Your task to perform on an android device: Search for logitech g903 on amazon, select the first entry, add it to the cart, then select checkout. Image 0: 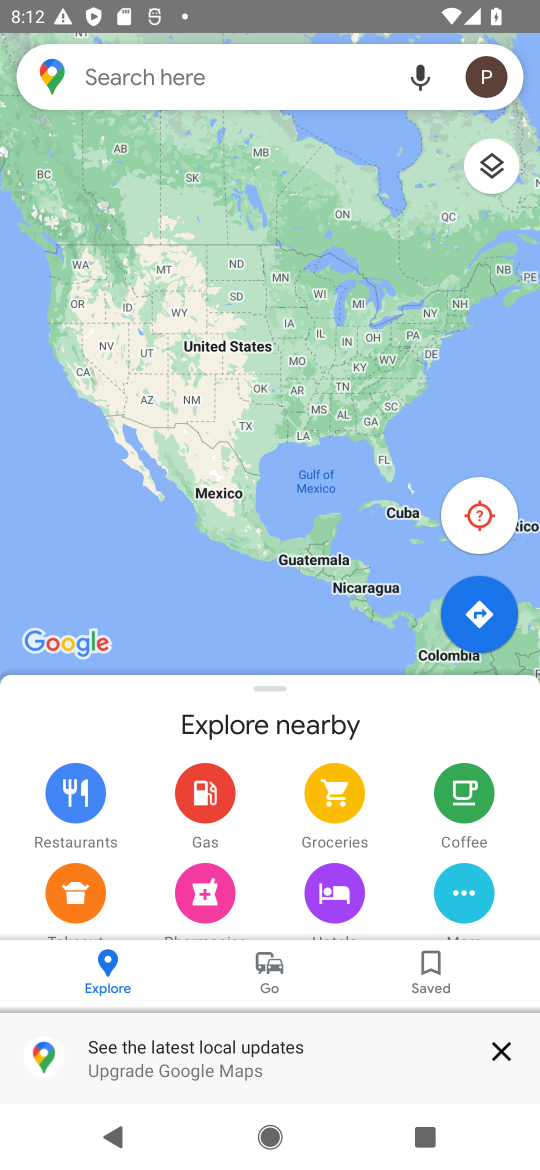
Step 0: press home button
Your task to perform on an android device: Search for logitech g903 on amazon, select the first entry, add it to the cart, then select checkout. Image 1: 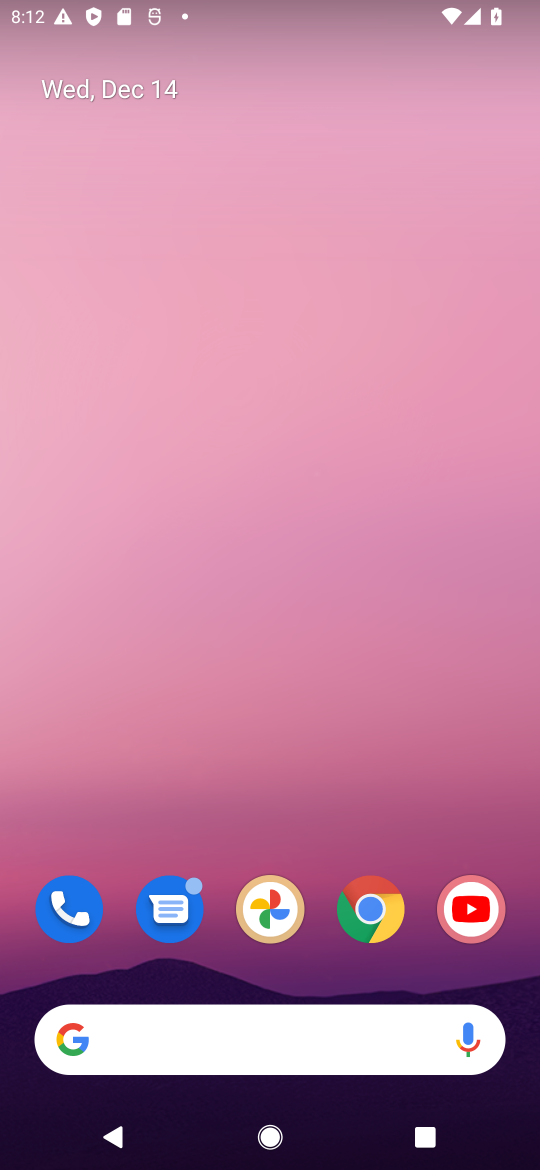
Step 1: click (363, 907)
Your task to perform on an android device: Search for logitech g903 on amazon, select the first entry, add it to the cart, then select checkout. Image 2: 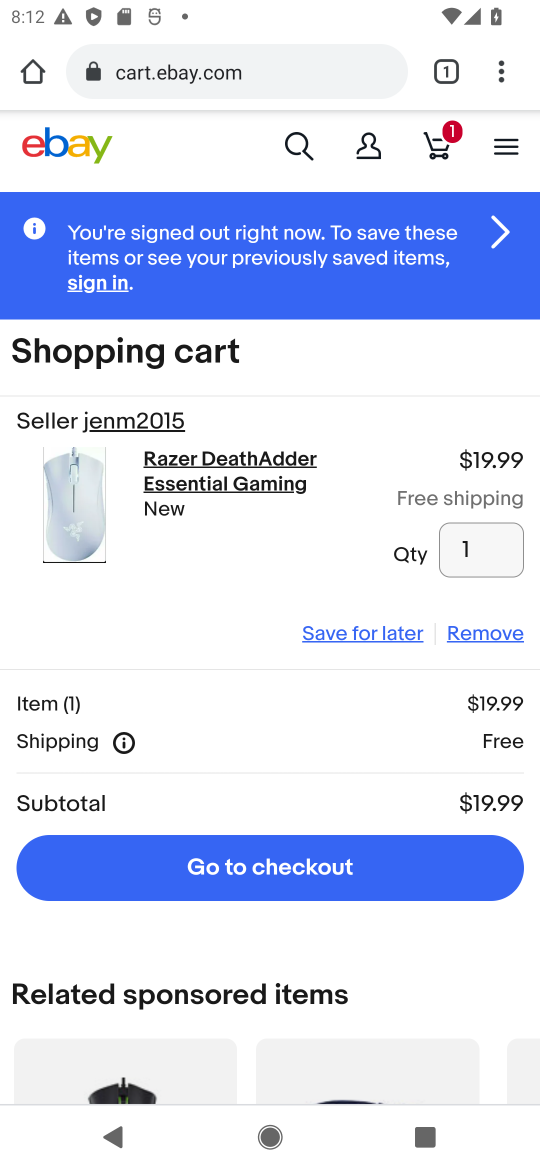
Step 2: click (274, 65)
Your task to perform on an android device: Search for logitech g903 on amazon, select the first entry, add it to the cart, then select checkout. Image 3: 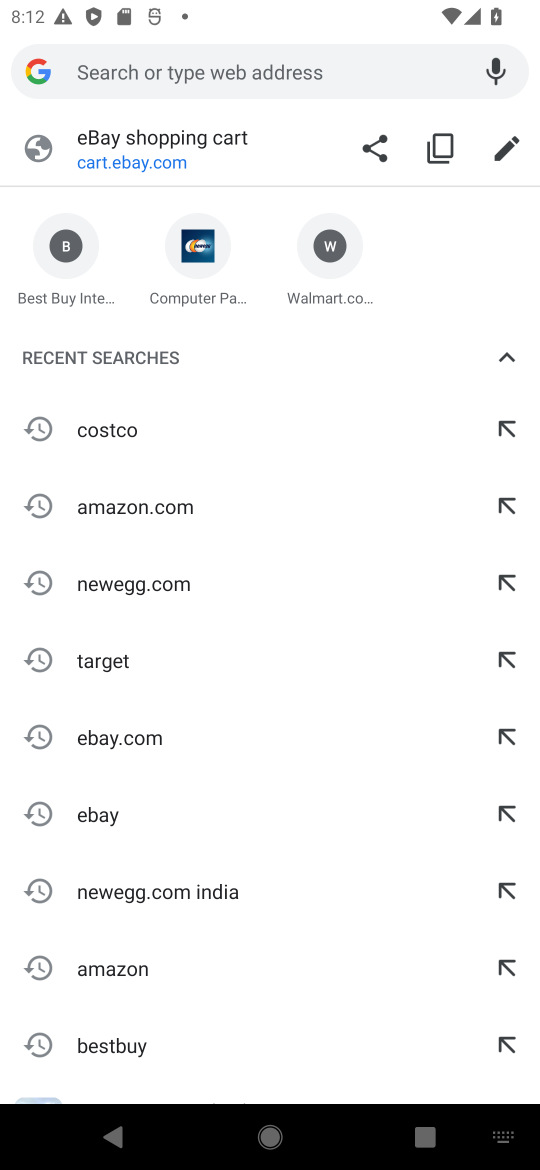
Step 3: click (120, 502)
Your task to perform on an android device: Search for logitech g903 on amazon, select the first entry, add it to the cart, then select checkout. Image 4: 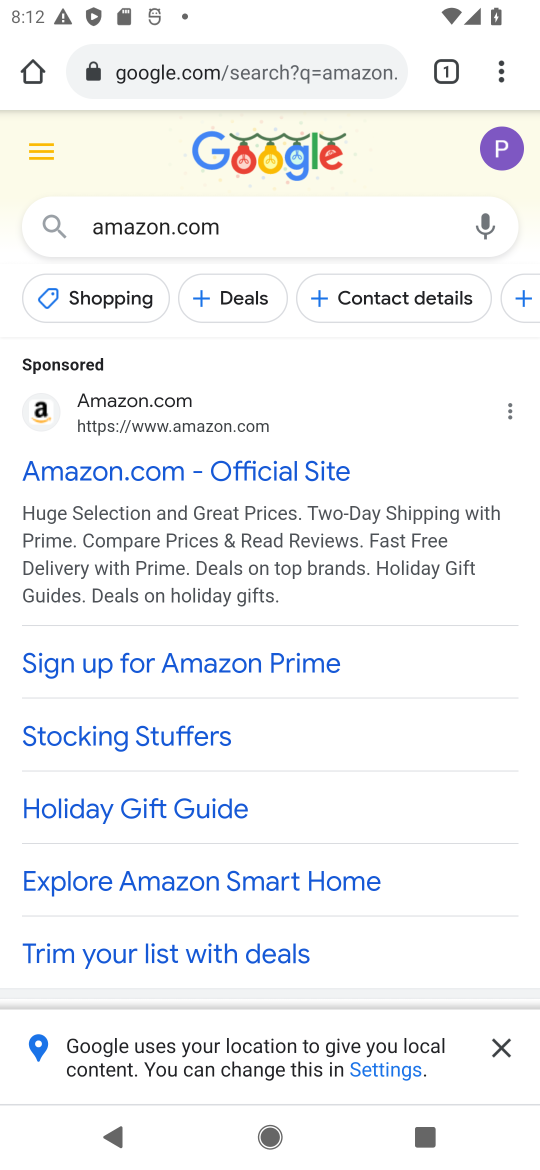
Step 4: click (155, 428)
Your task to perform on an android device: Search for logitech g903 on amazon, select the first entry, add it to the cart, then select checkout. Image 5: 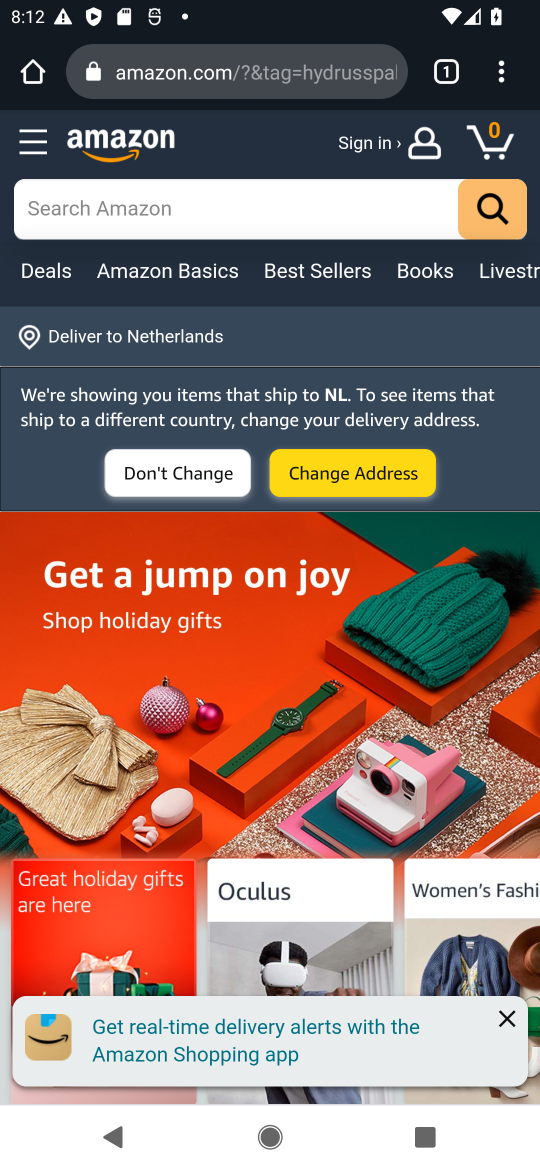
Step 5: click (394, 215)
Your task to perform on an android device: Search for logitech g903 on amazon, select the first entry, add it to the cart, then select checkout. Image 6: 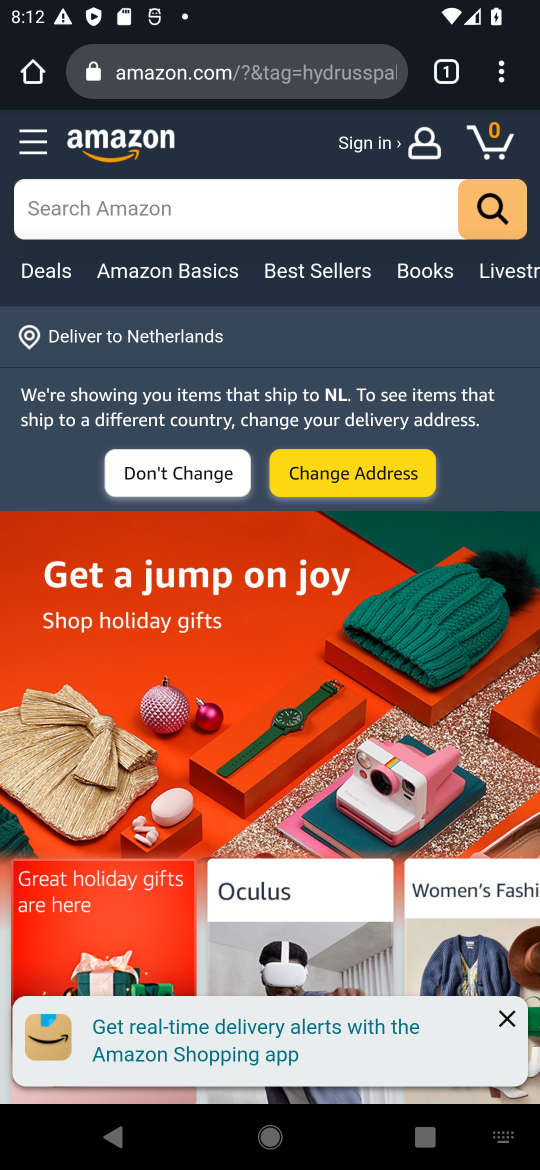
Step 6: type "logitech g903"
Your task to perform on an android device: Search for logitech g903 on amazon, select the first entry, add it to the cart, then select checkout. Image 7: 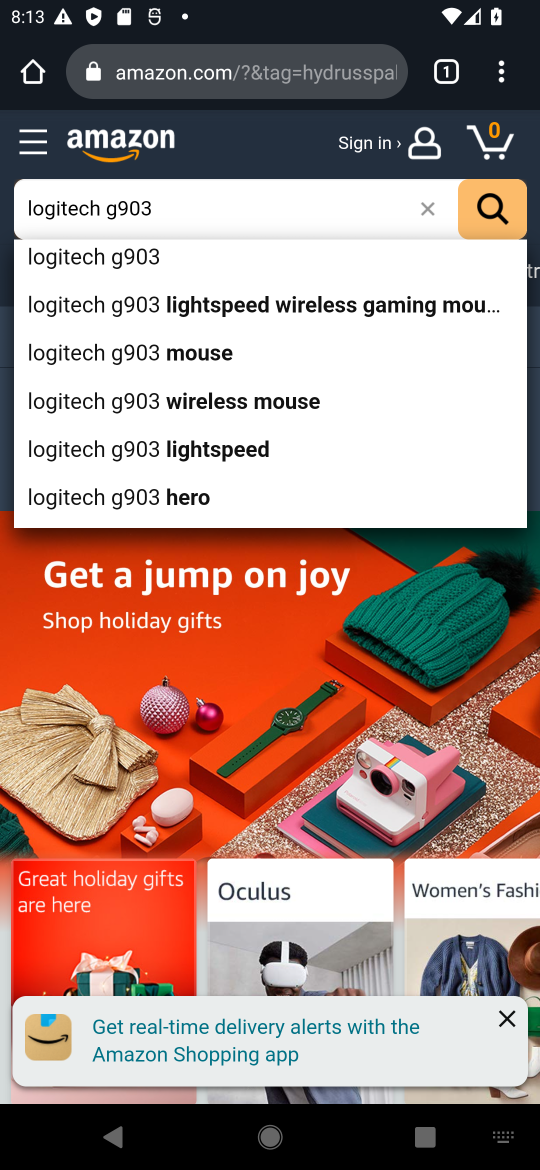
Step 7: click (99, 267)
Your task to perform on an android device: Search for logitech g903 on amazon, select the first entry, add it to the cart, then select checkout. Image 8: 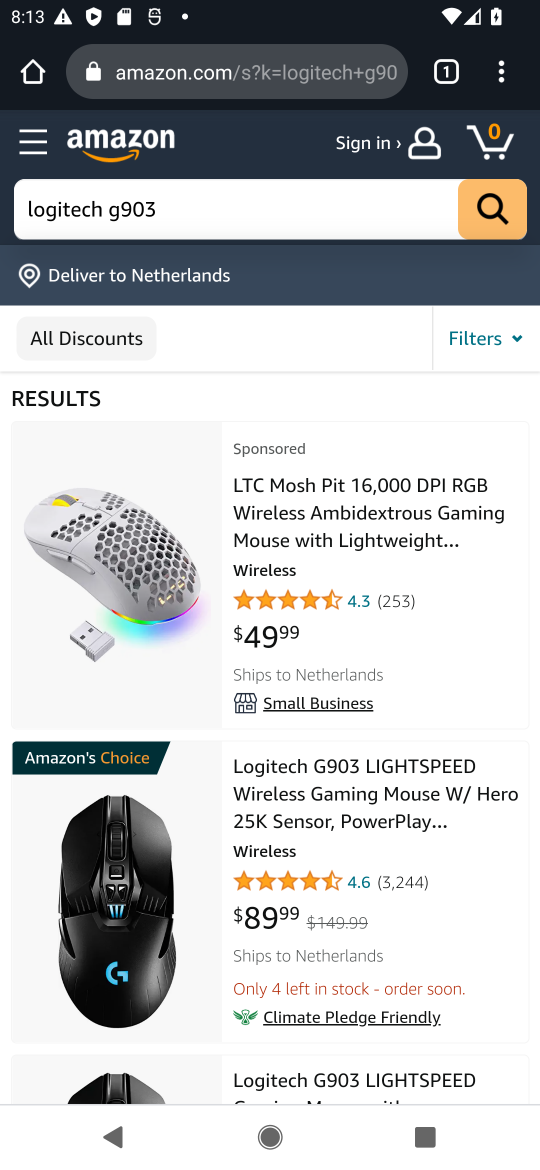
Step 8: click (136, 889)
Your task to perform on an android device: Search for logitech g903 on amazon, select the first entry, add it to the cart, then select checkout. Image 9: 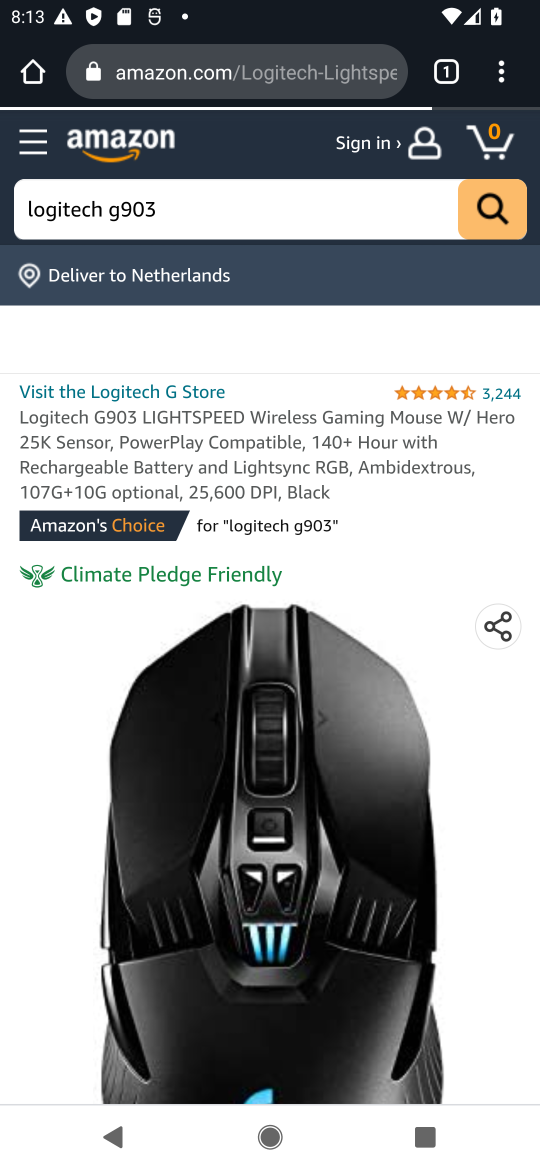
Step 9: drag from (378, 950) to (466, 361)
Your task to perform on an android device: Search for logitech g903 on amazon, select the first entry, add it to the cart, then select checkout. Image 10: 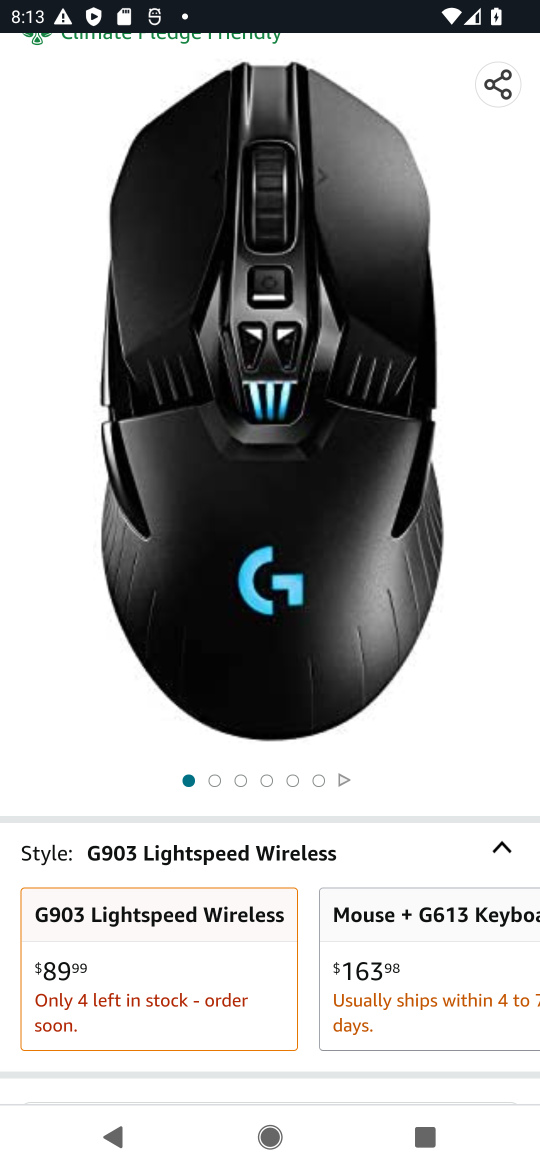
Step 10: drag from (395, 853) to (538, 433)
Your task to perform on an android device: Search for logitech g903 on amazon, select the first entry, add it to the cart, then select checkout. Image 11: 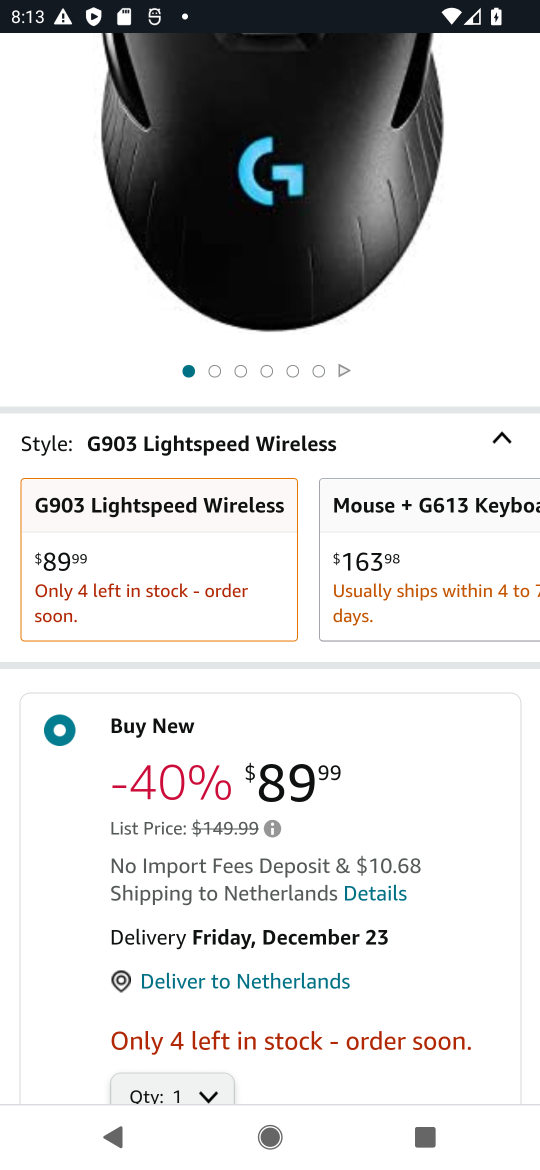
Step 11: drag from (452, 764) to (525, 385)
Your task to perform on an android device: Search for logitech g903 on amazon, select the first entry, add it to the cart, then select checkout. Image 12: 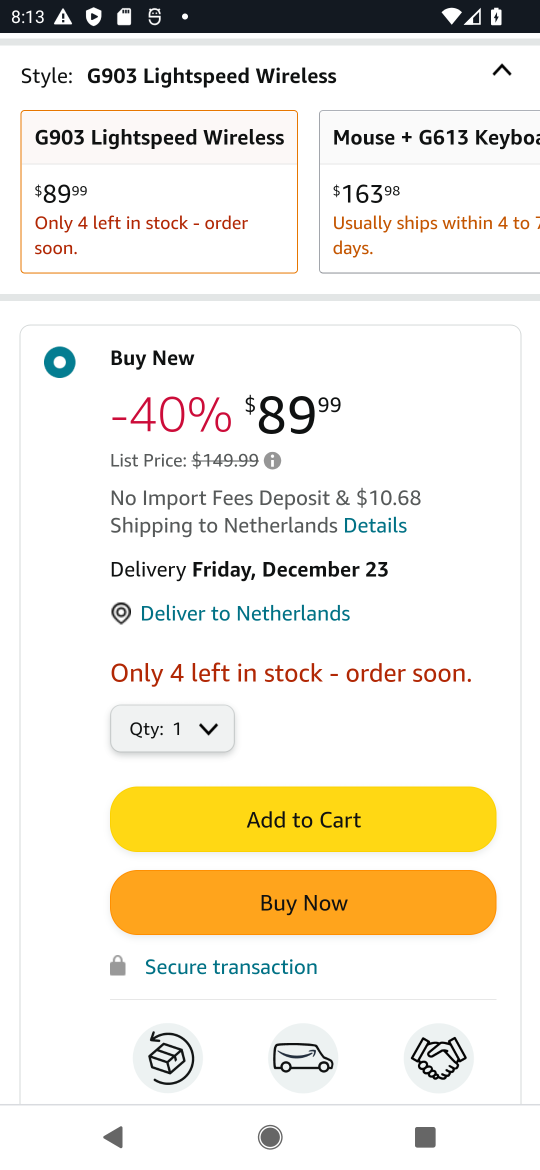
Step 12: click (357, 818)
Your task to perform on an android device: Search for logitech g903 on amazon, select the first entry, add it to the cart, then select checkout. Image 13: 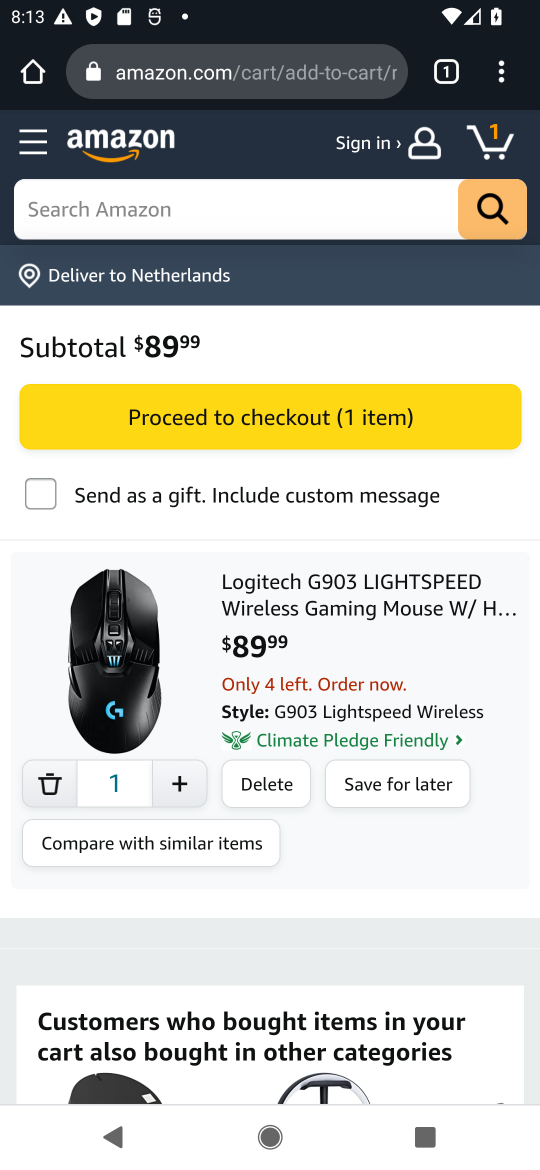
Step 13: click (246, 410)
Your task to perform on an android device: Search for logitech g903 on amazon, select the first entry, add it to the cart, then select checkout. Image 14: 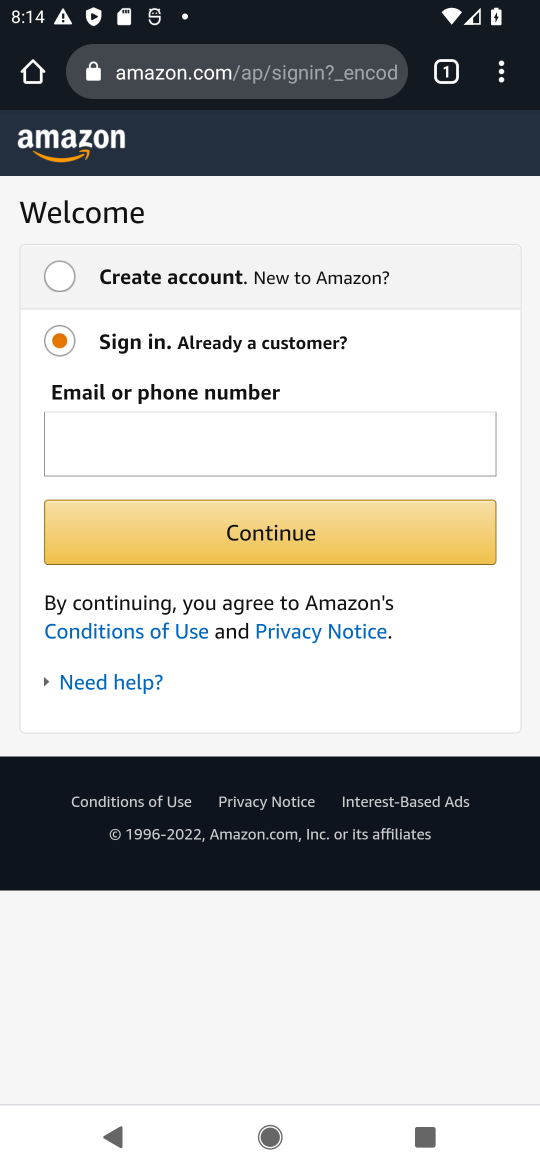
Step 14: task complete